Your task to perform on an android device: Open Google Chrome and open the bookmarks view Image 0: 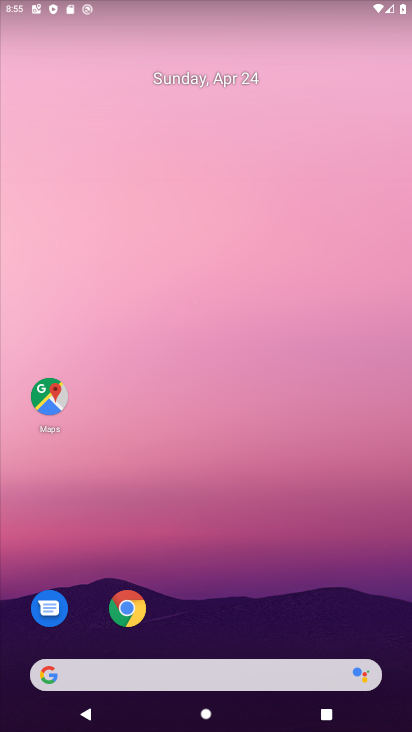
Step 0: drag from (236, 622) to (231, 73)
Your task to perform on an android device: Open Google Chrome and open the bookmarks view Image 1: 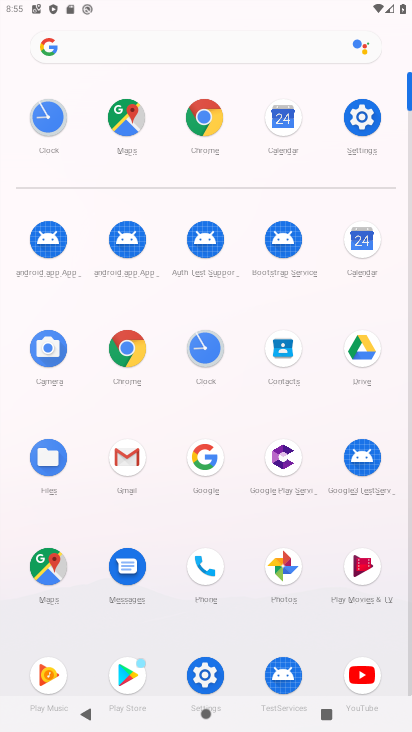
Step 1: click (127, 337)
Your task to perform on an android device: Open Google Chrome and open the bookmarks view Image 2: 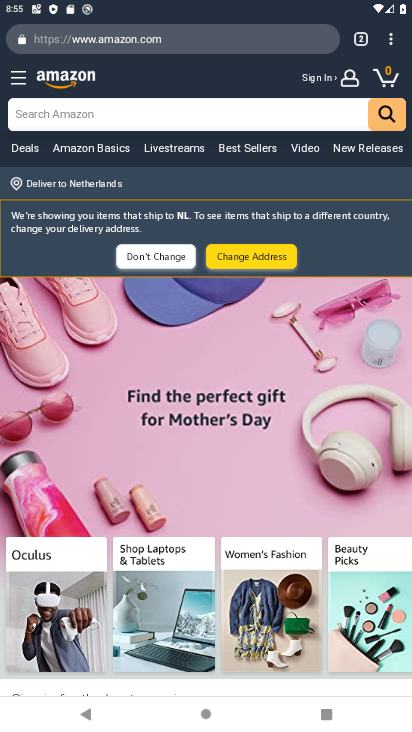
Step 2: click (391, 36)
Your task to perform on an android device: Open Google Chrome and open the bookmarks view Image 3: 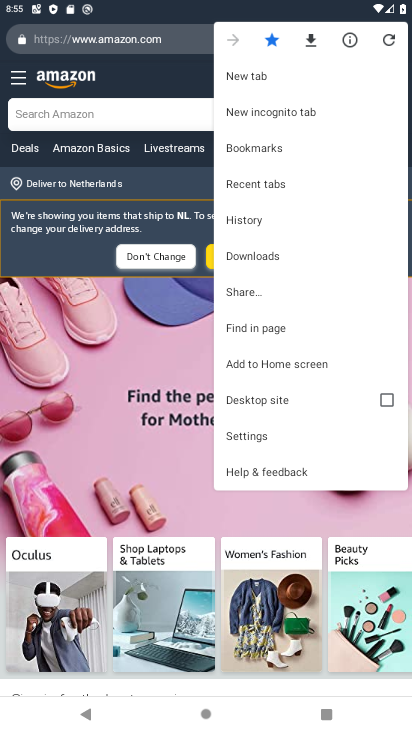
Step 3: click (272, 141)
Your task to perform on an android device: Open Google Chrome and open the bookmarks view Image 4: 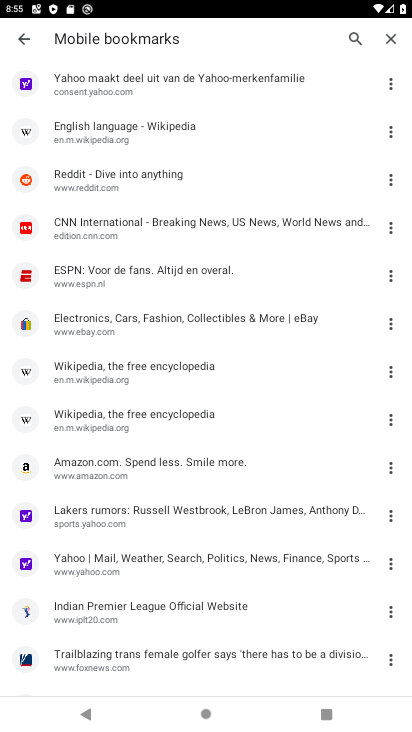
Step 4: task complete